Your task to perform on an android device: Set the phone to "Do not disturb". Image 0: 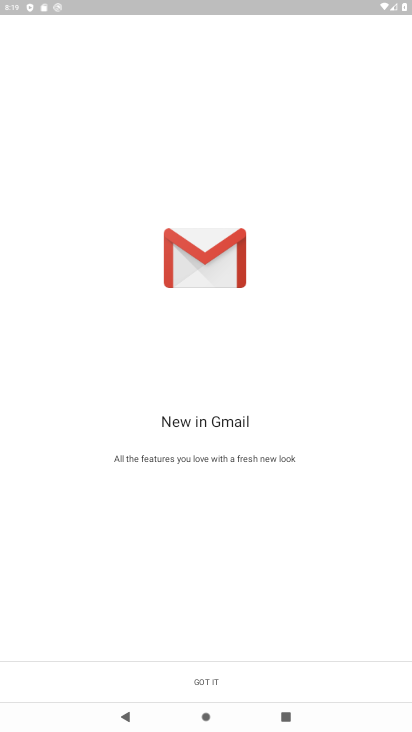
Step 0: drag from (214, 635) to (325, 154)
Your task to perform on an android device: Set the phone to "Do not disturb". Image 1: 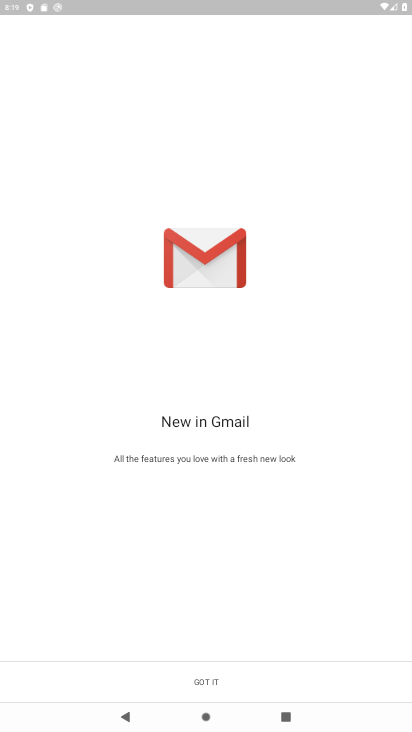
Step 1: press home button
Your task to perform on an android device: Set the phone to "Do not disturb". Image 2: 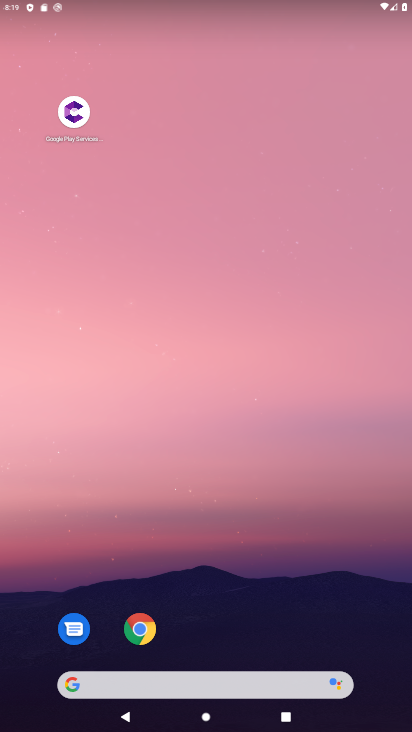
Step 2: drag from (184, 645) to (273, 97)
Your task to perform on an android device: Set the phone to "Do not disturb". Image 3: 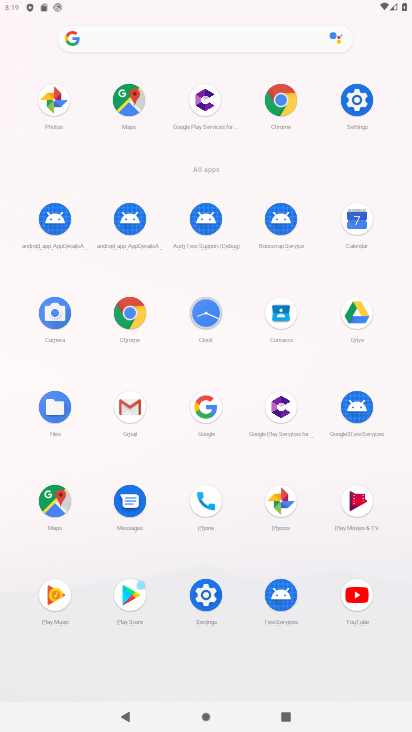
Step 3: click (209, 583)
Your task to perform on an android device: Set the phone to "Do not disturb". Image 4: 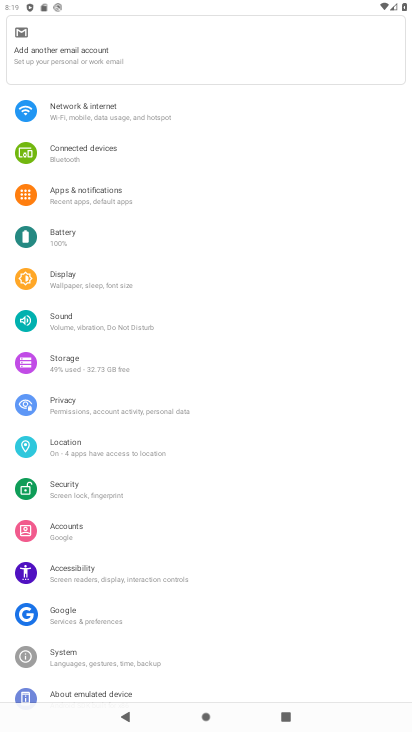
Step 4: click (116, 191)
Your task to perform on an android device: Set the phone to "Do not disturb". Image 5: 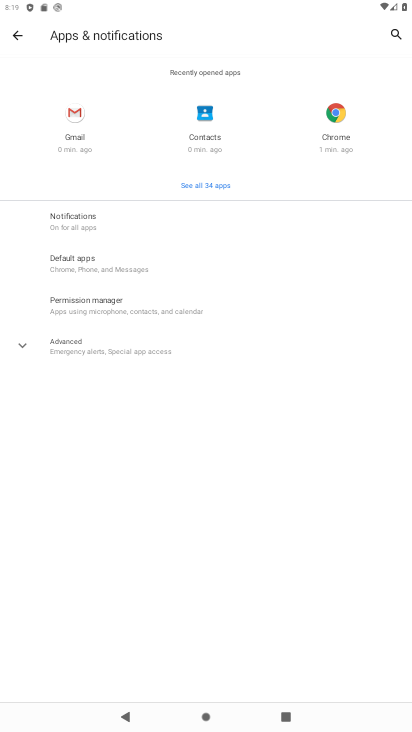
Step 5: click (167, 348)
Your task to perform on an android device: Set the phone to "Do not disturb". Image 6: 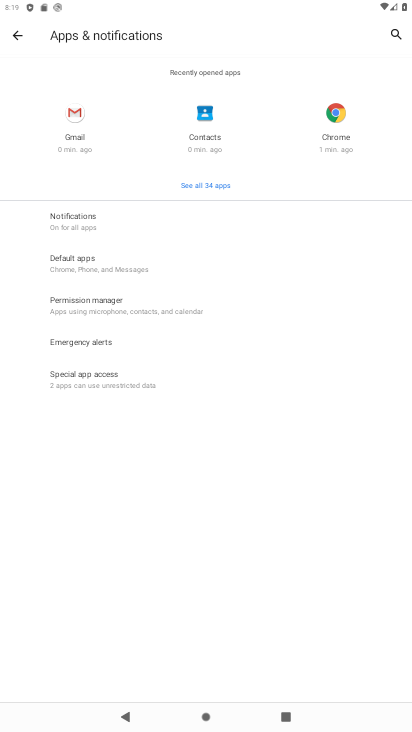
Step 6: click (166, 211)
Your task to perform on an android device: Set the phone to "Do not disturb". Image 7: 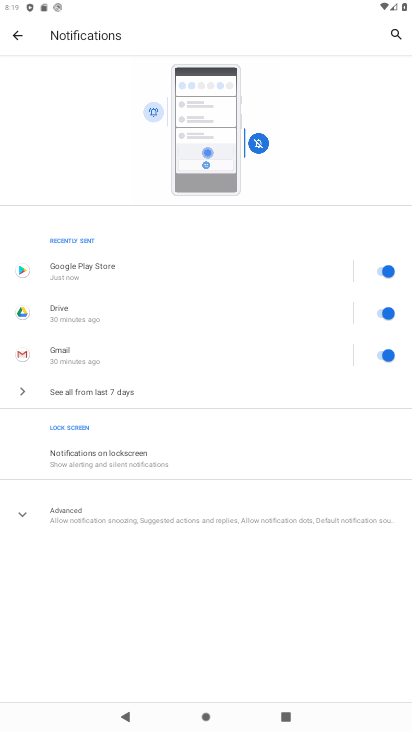
Step 7: click (153, 514)
Your task to perform on an android device: Set the phone to "Do not disturb". Image 8: 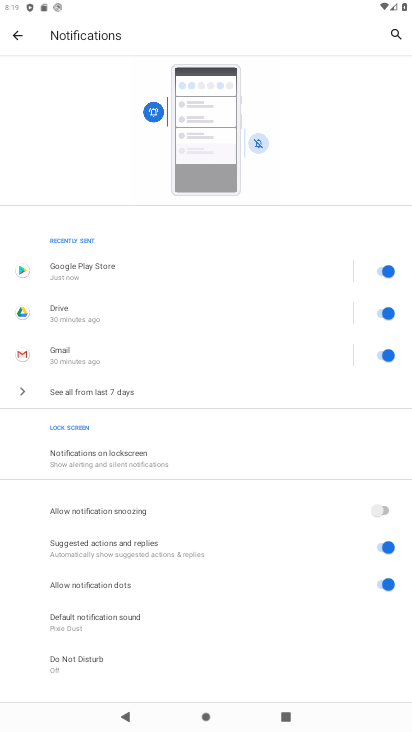
Step 8: drag from (130, 671) to (202, 458)
Your task to perform on an android device: Set the phone to "Do not disturb". Image 9: 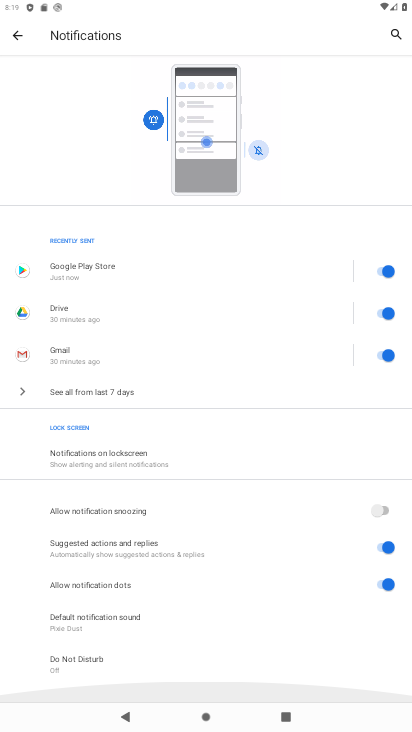
Step 9: click (120, 656)
Your task to perform on an android device: Set the phone to "Do not disturb". Image 10: 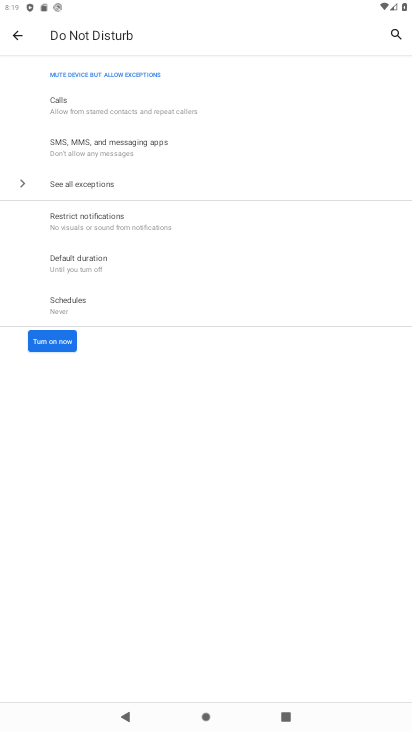
Step 10: click (61, 340)
Your task to perform on an android device: Set the phone to "Do not disturb". Image 11: 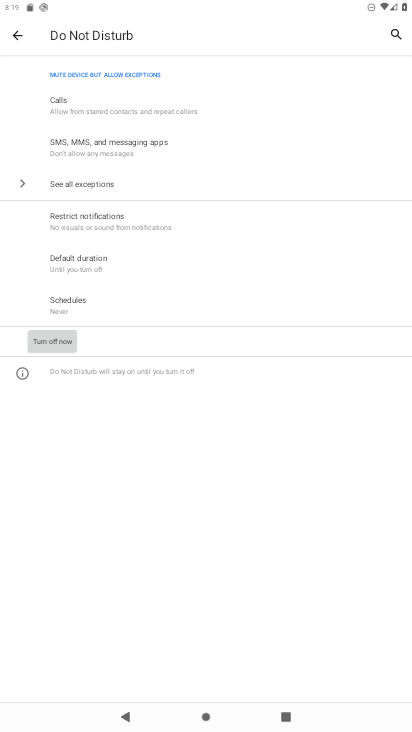
Step 11: task complete